Your task to perform on an android device: Open settings on Google Maps Image 0: 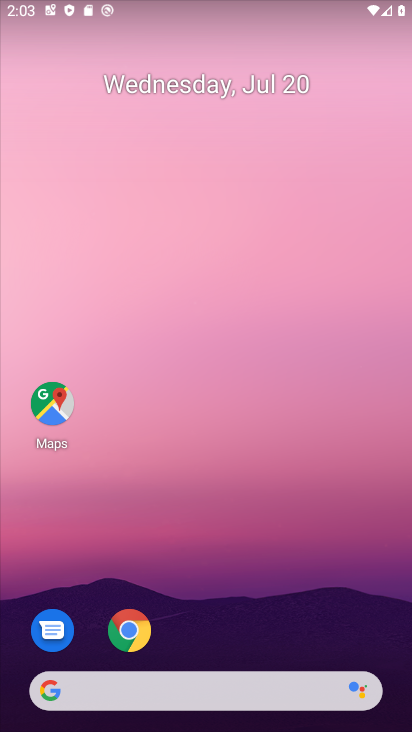
Step 0: drag from (358, 603) to (391, 59)
Your task to perform on an android device: Open settings on Google Maps Image 1: 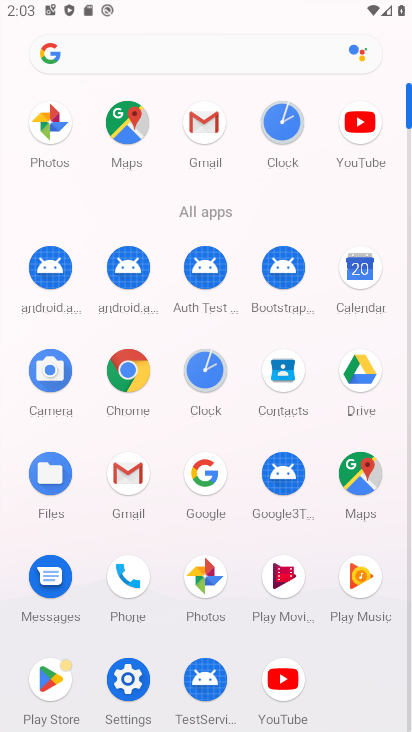
Step 1: click (360, 481)
Your task to perform on an android device: Open settings on Google Maps Image 2: 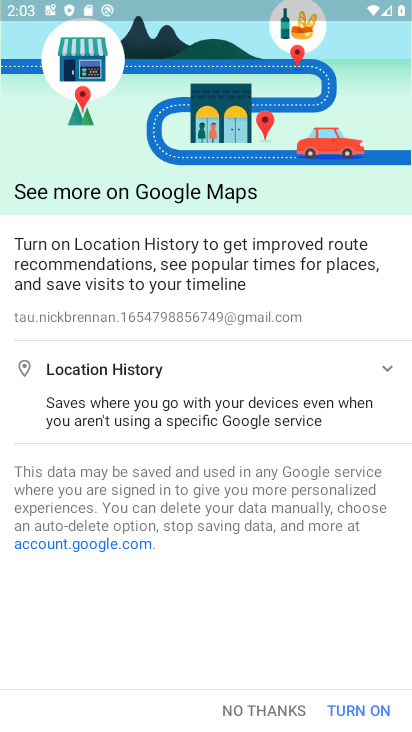
Step 2: task complete